Your task to perform on an android device: turn vacation reply on in the gmail app Image 0: 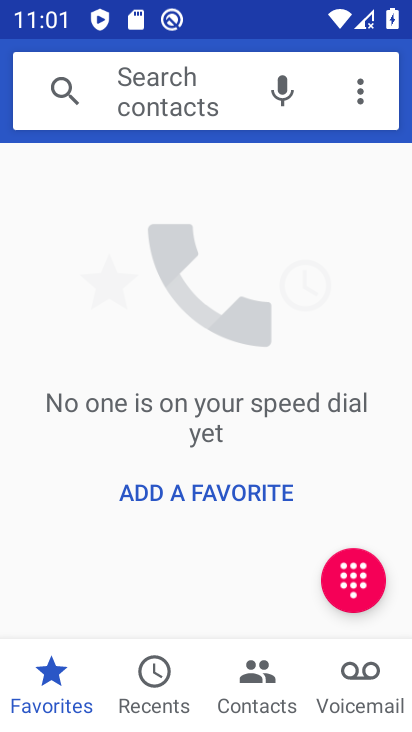
Step 0: press home button
Your task to perform on an android device: turn vacation reply on in the gmail app Image 1: 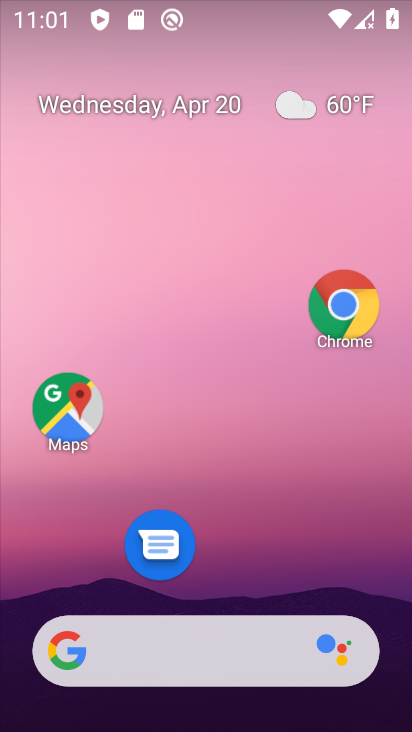
Step 1: drag from (230, 436) to (243, 223)
Your task to perform on an android device: turn vacation reply on in the gmail app Image 2: 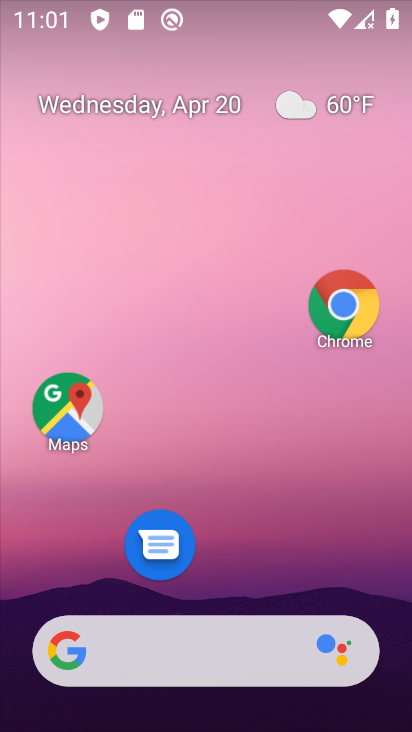
Step 2: drag from (249, 562) to (267, 213)
Your task to perform on an android device: turn vacation reply on in the gmail app Image 3: 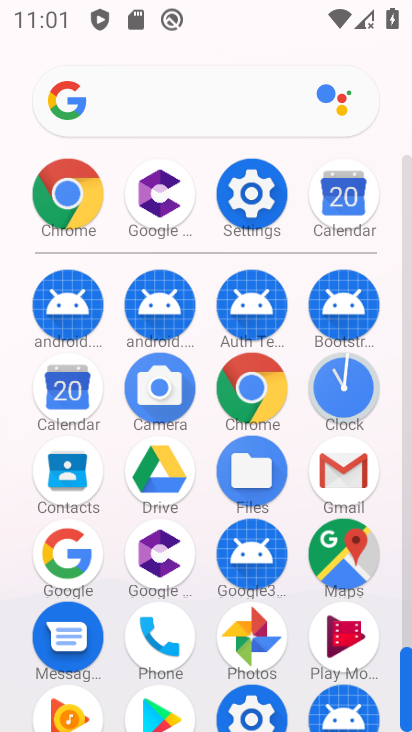
Step 3: click (347, 474)
Your task to perform on an android device: turn vacation reply on in the gmail app Image 4: 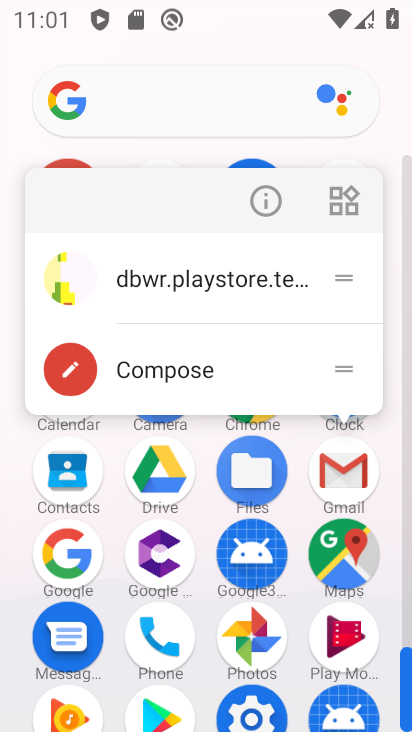
Step 4: click (348, 482)
Your task to perform on an android device: turn vacation reply on in the gmail app Image 5: 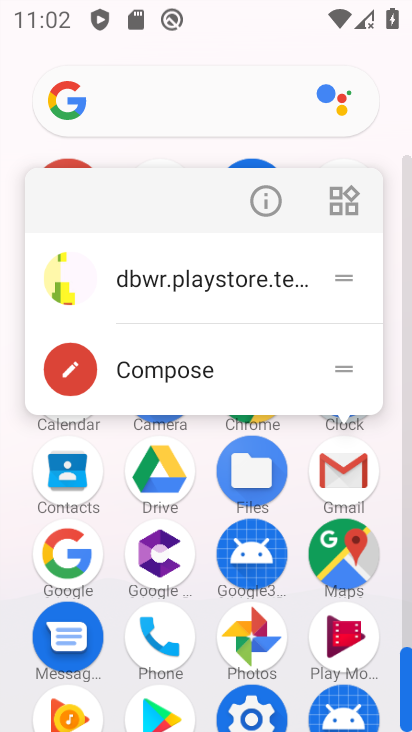
Step 5: click (348, 482)
Your task to perform on an android device: turn vacation reply on in the gmail app Image 6: 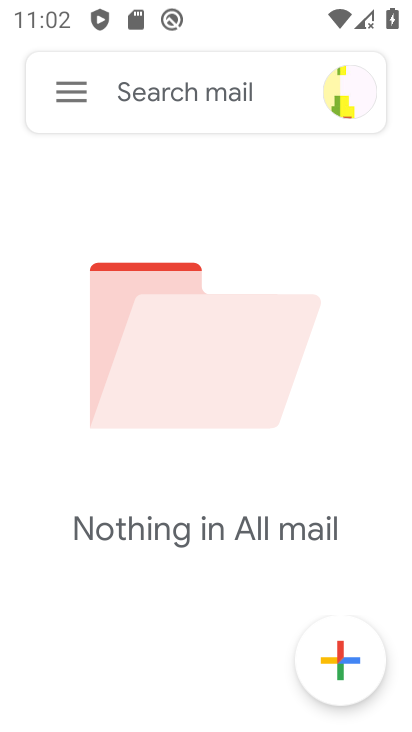
Step 6: click (74, 92)
Your task to perform on an android device: turn vacation reply on in the gmail app Image 7: 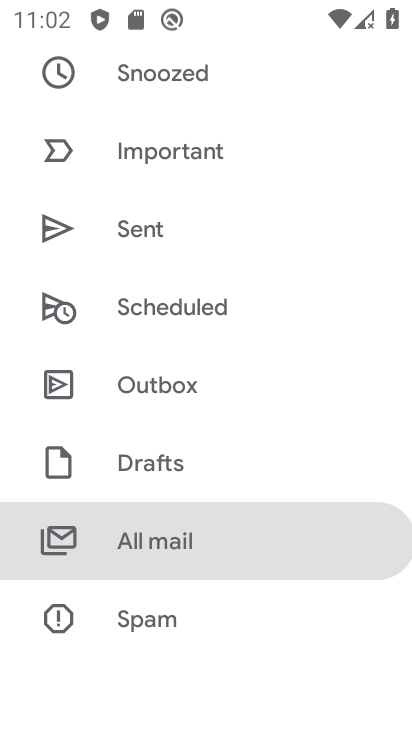
Step 7: drag from (203, 471) to (152, 89)
Your task to perform on an android device: turn vacation reply on in the gmail app Image 8: 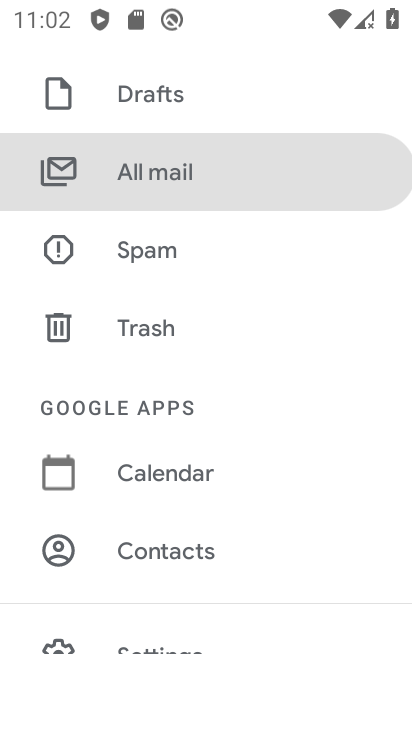
Step 8: drag from (172, 487) to (216, 100)
Your task to perform on an android device: turn vacation reply on in the gmail app Image 9: 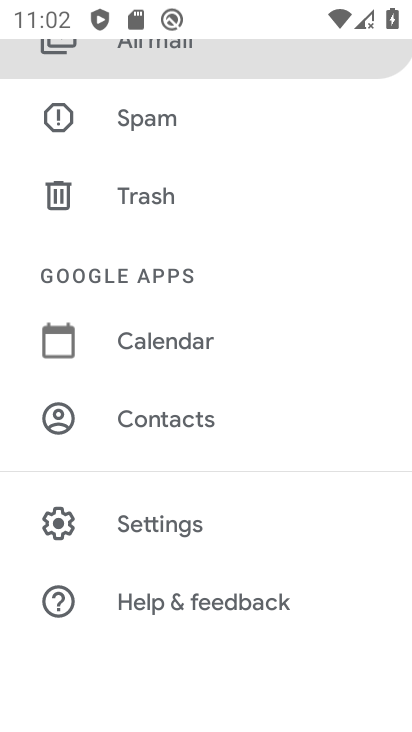
Step 9: click (197, 521)
Your task to perform on an android device: turn vacation reply on in the gmail app Image 10: 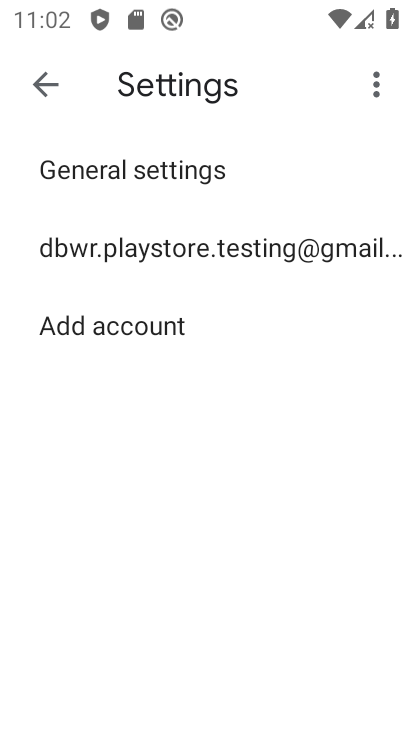
Step 10: click (244, 253)
Your task to perform on an android device: turn vacation reply on in the gmail app Image 11: 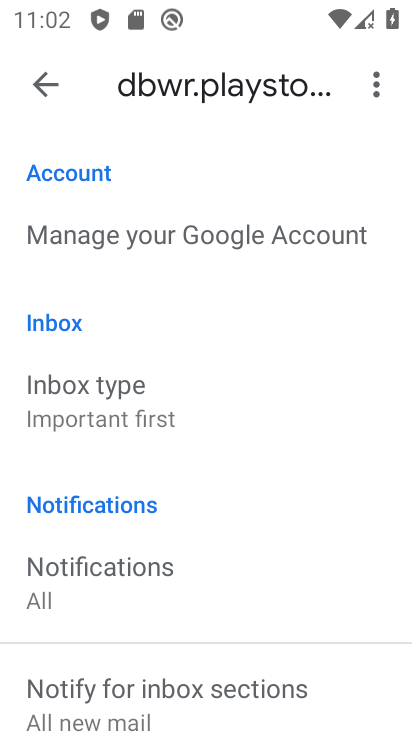
Step 11: drag from (186, 533) to (187, 59)
Your task to perform on an android device: turn vacation reply on in the gmail app Image 12: 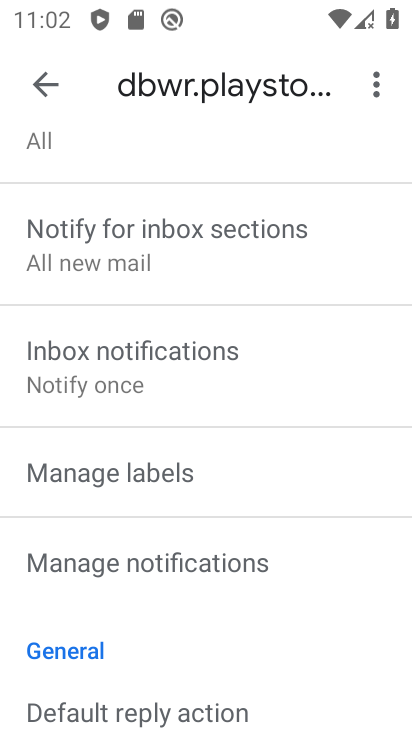
Step 12: drag from (195, 635) to (196, 299)
Your task to perform on an android device: turn vacation reply on in the gmail app Image 13: 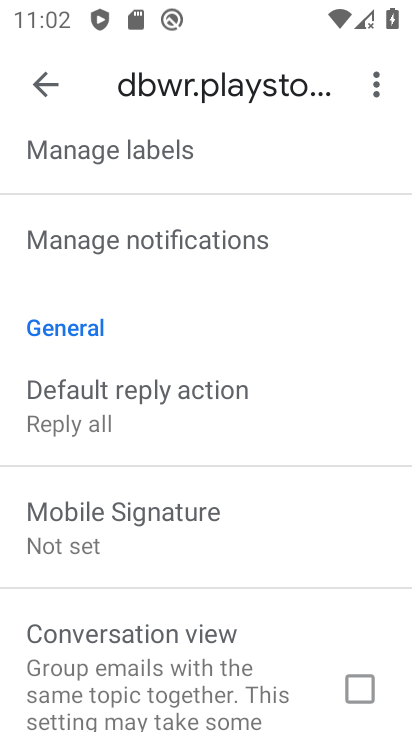
Step 13: drag from (150, 575) to (124, 336)
Your task to perform on an android device: turn vacation reply on in the gmail app Image 14: 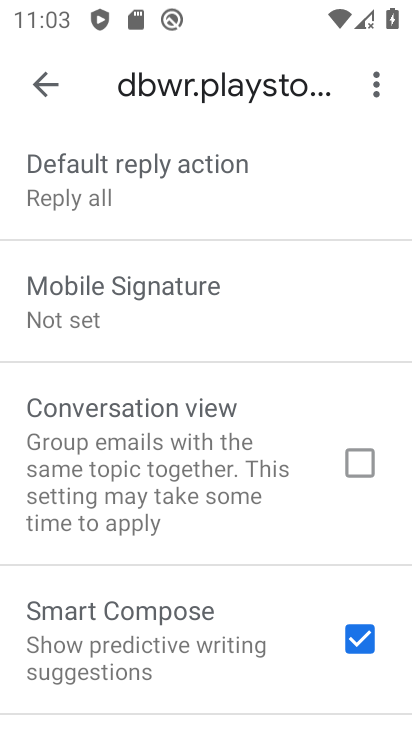
Step 14: drag from (141, 597) to (143, 144)
Your task to perform on an android device: turn vacation reply on in the gmail app Image 15: 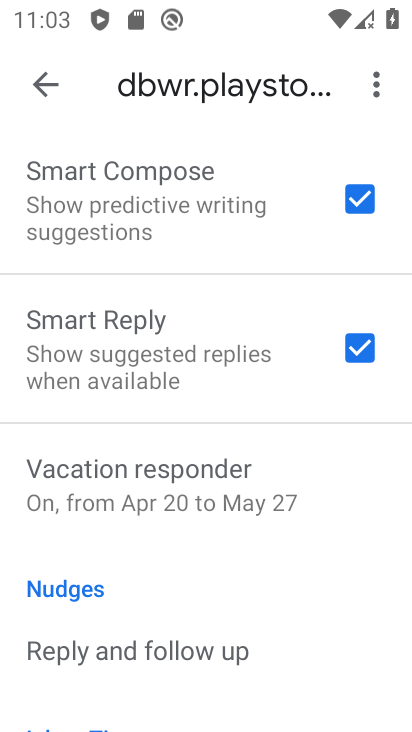
Step 15: click (189, 483)
Your task to perform on an android device: turn vacation reply on in the gmail app Image 16: 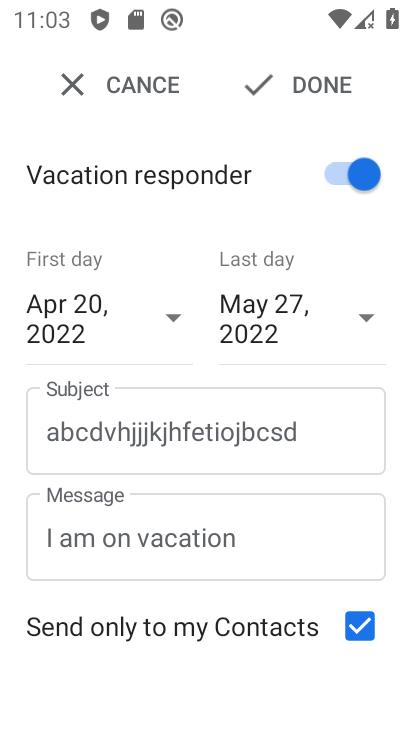
Step 16: task complete